Your task to perform on an android device: Open ESPN.com Image 0: 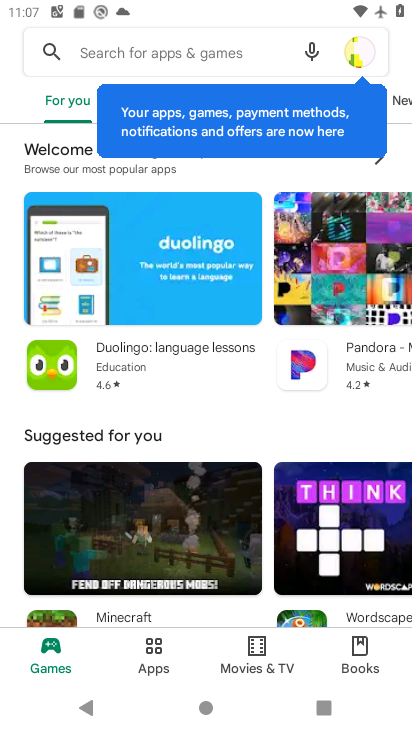
Step 0: press home button
Your task to perform on an android device: Open ESPN.com Image 1: 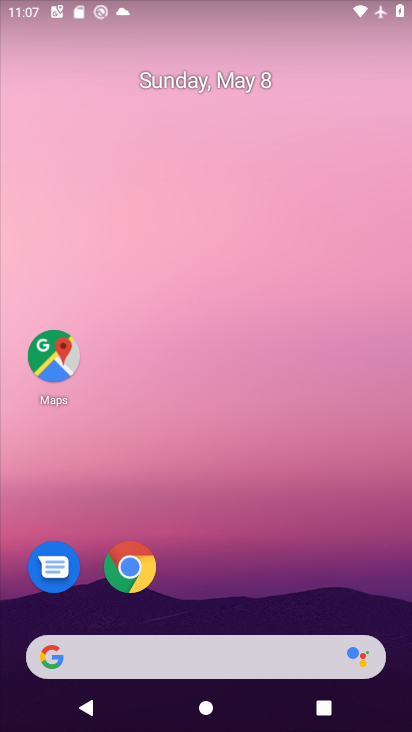
Step 1: click (142, 596)
Your task to perform on an android device: Open ESPN.com Image 2: 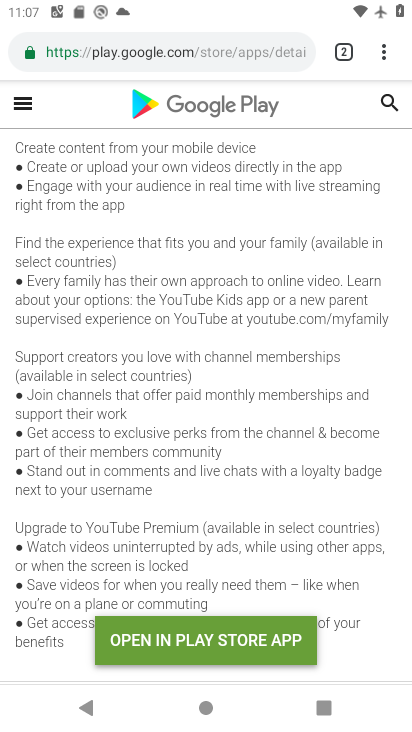
Step 2: click (327, 61)
Your task to perform on an android device: Open ESPN.com Image 3: 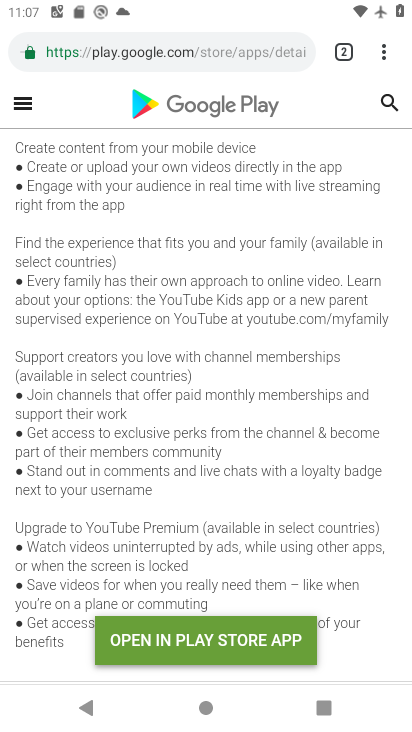
Step 3: click (339, 47)
Your task to perform on an android device: Open ESPN.com Image 4: 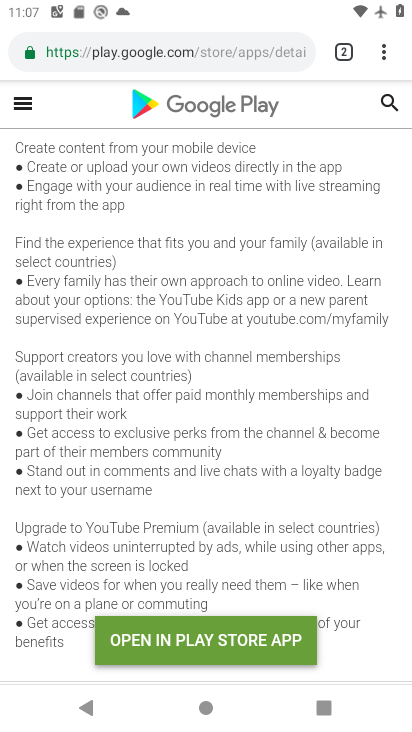
Step 4: click (352, 55)
Your task to perform on an android device: Open ESPN.com Image 5: 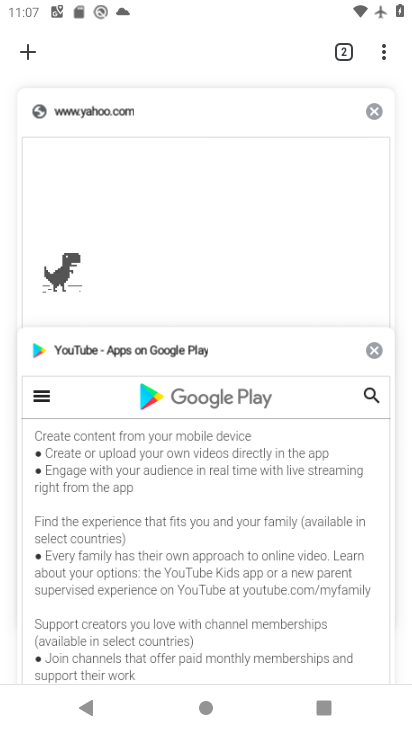
Step 5: click (382, 346)
Your task to perform on an android device: Open ESPN.com Image 6: 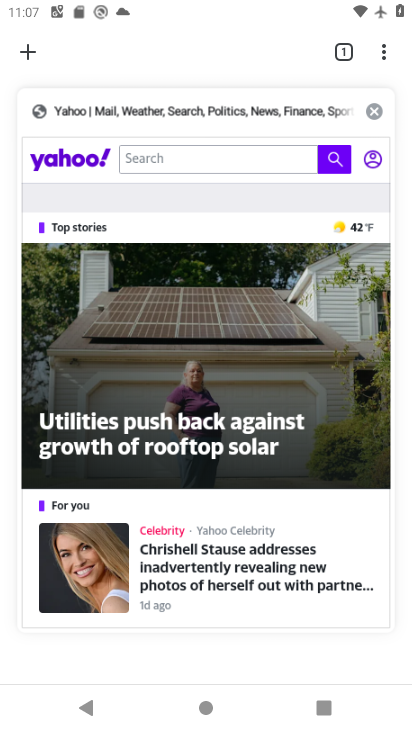
Step 6: click (374, 107)
Your task to perform on an android device: Open ESPN.com Image 7: 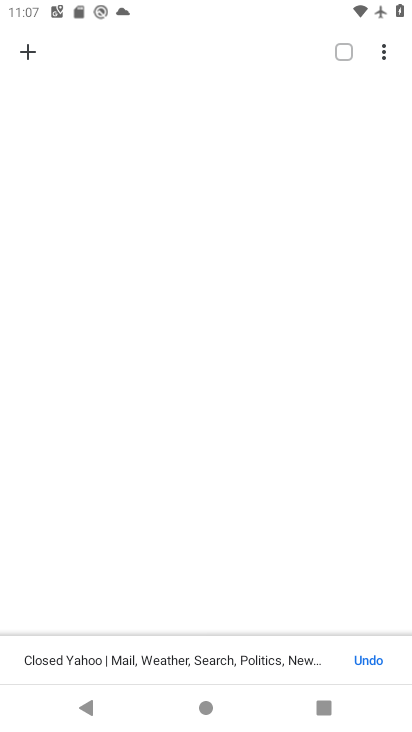
Step 7: click (31, 57)
Your task to perform on an android device: Open ESPN.com Image 8: 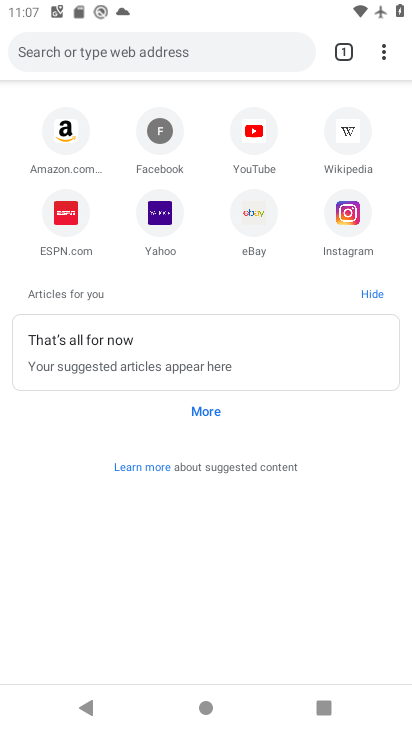
Step 8: click (81, 233)
Your task to perform on an android device: Open ESPN.com Image 9: 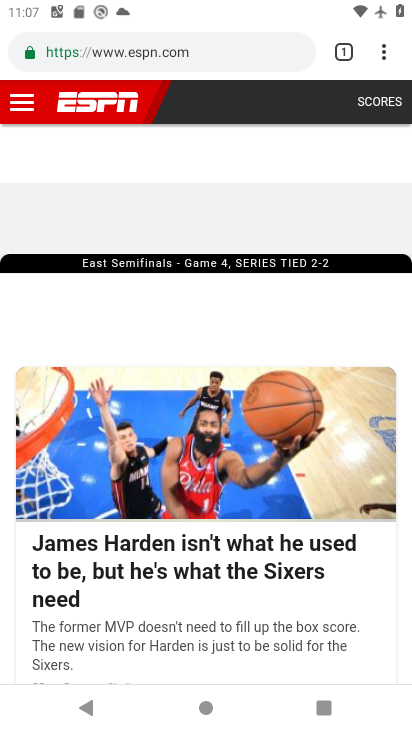
Step 9: task complete